Your task to perform on an android device: Go to location settings Image 0: 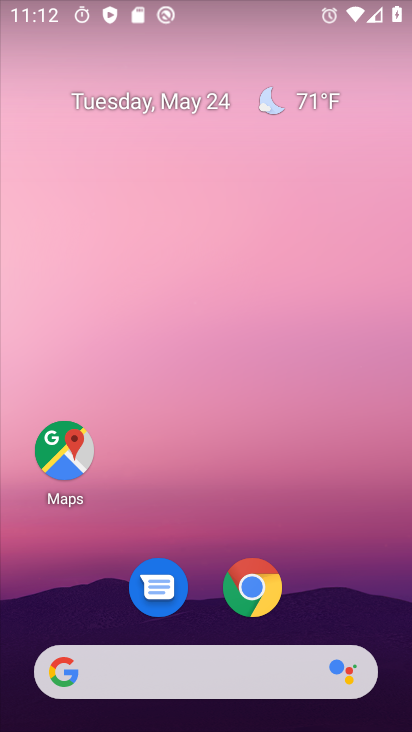
Step 0: drag from (329, 680) to (236, 103)
Your task to perform on an android device: Go to location settings Image 1: 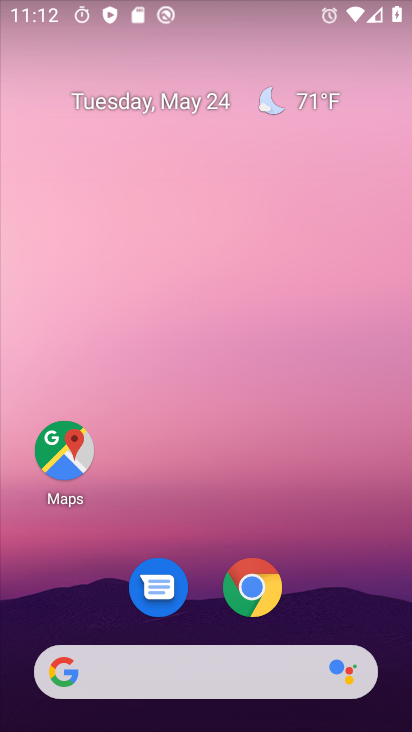
Step 1: click (240, 113)
Your task to perform on an android device: Go to location settings Image 2: 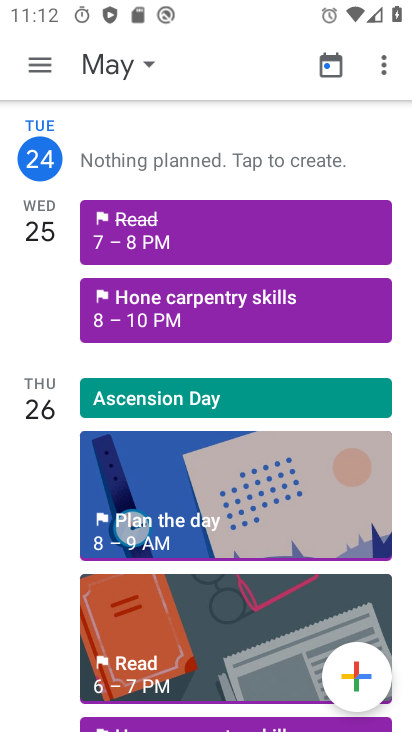
Step 2: drag from (381, 530) to (265, 27)
Your task to perform on an android device: Go to location settings Image 3: 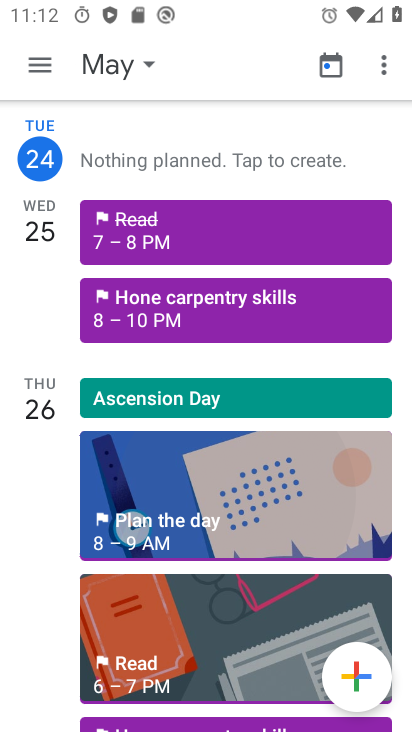
Step 3: drag from (375, 450) to (252, 168)
Your task to perform on an android device: Go to location settings Image 4: 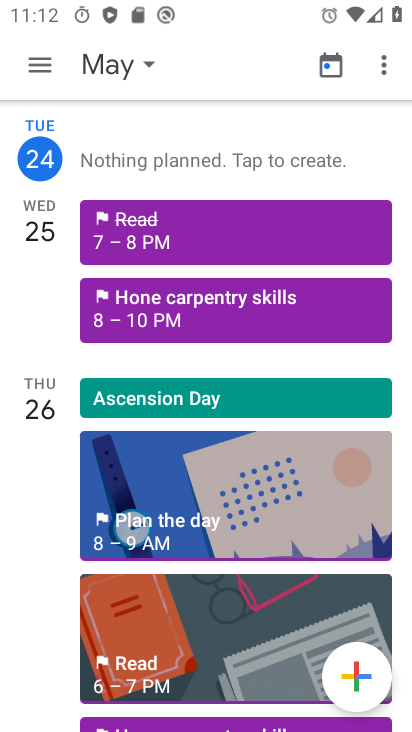
Step 4: press back button
Your task to perform on an android device: Go to location settings Image 5: 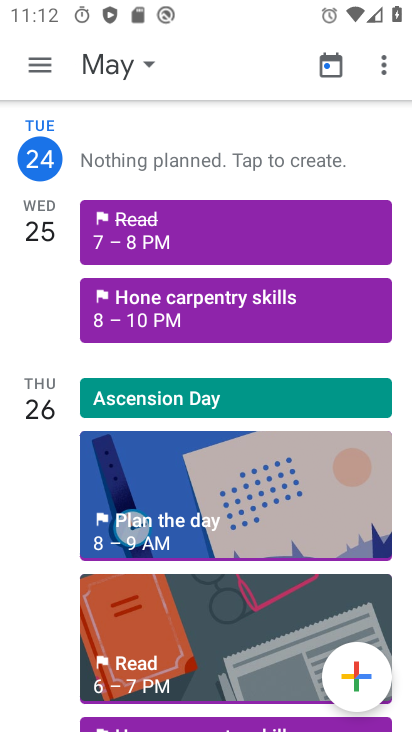
Step 5: press back button
Your task to perform on an android device: Go to location settings Image 6: 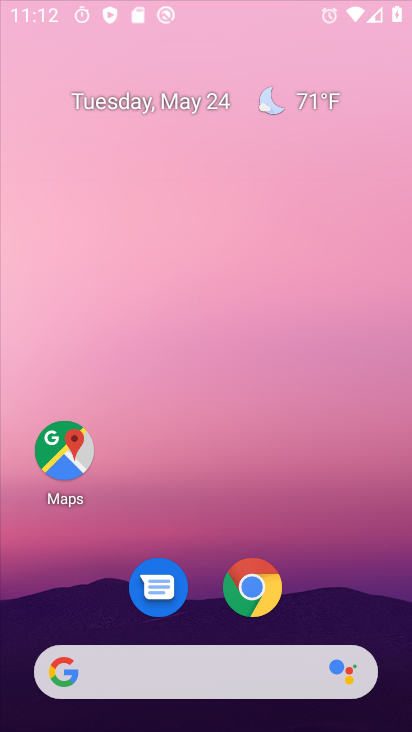
Step 6: press back button
Your task to perform on an android device: Go to location settings Image 7: 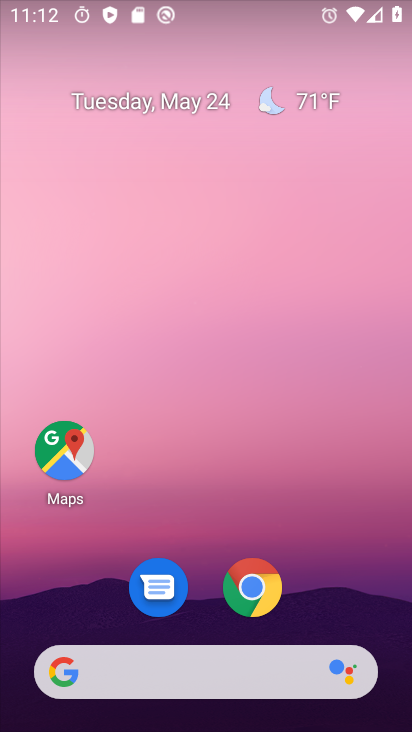
Step 7: press home button
Your task to perform on an android device: Go to location settings Image 8: 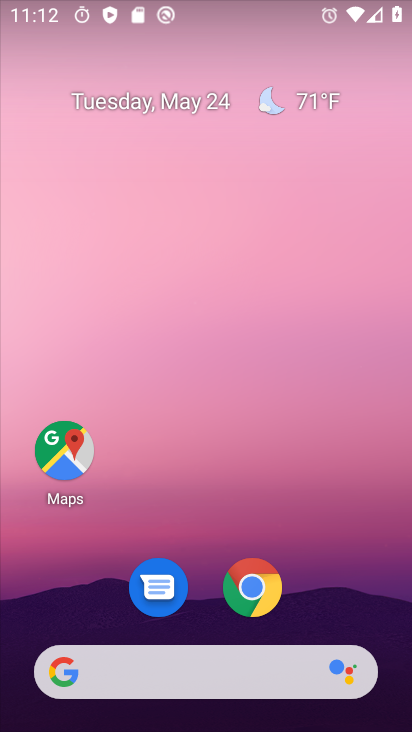
Step 8: drag from (341, 624) to (216, 219)
Your task to perform on an android device: Go to location settings Image 9: 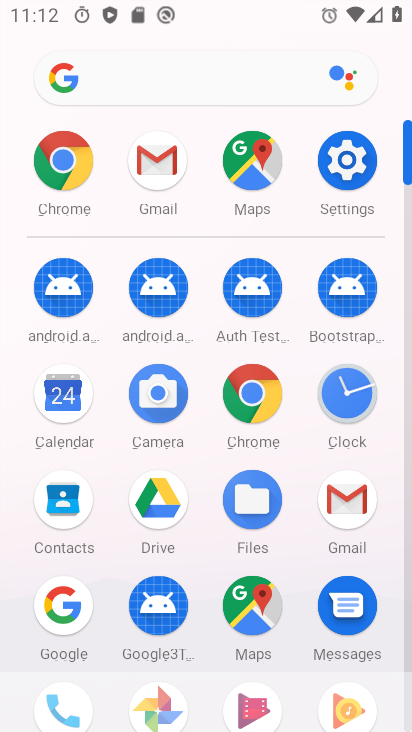
Step 9: click (346, 150)
Your task to perform on an android device: Go to location settings Image 10: 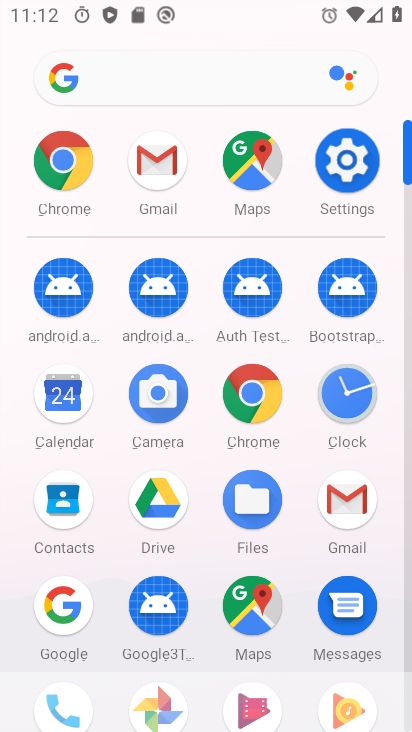
Step 10: click (346, 150)
Your task to perform on an android device: Go to location settings Image 11: 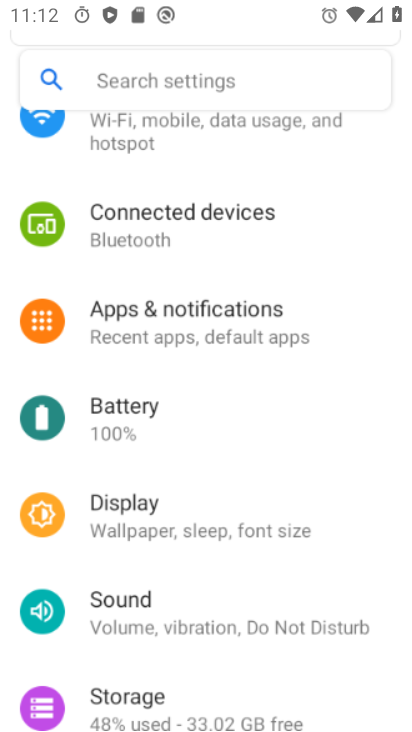
Step 11: click (349, 150)
Your task to perform on an android device: Go to location settings Image 12: 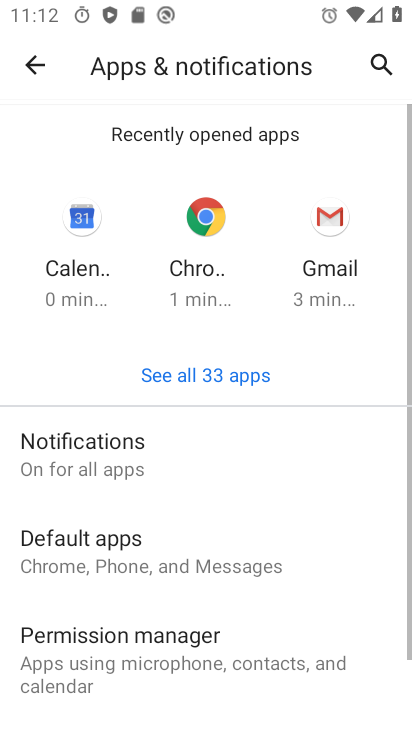
Step 12: click (20, 66)
Your task to perform on an android device: Go to location settings Image 13: 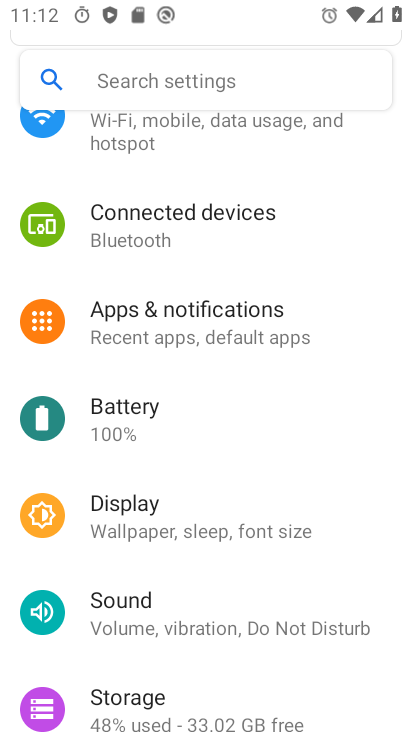
Step 13: drag from (187, 532) to (166, 236)
Your task to perform on an android device: Go to location settings Image 14: 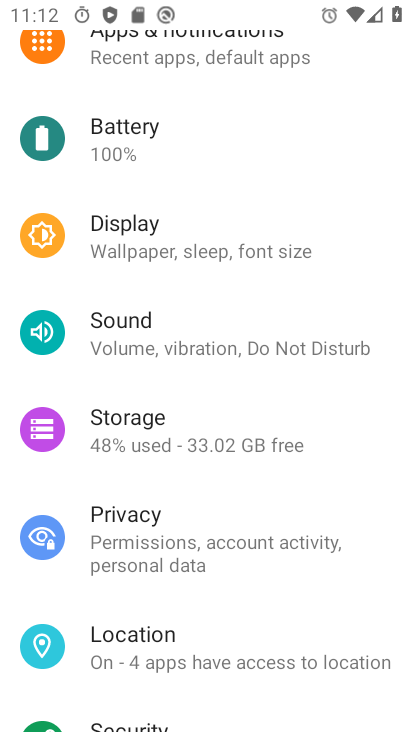
Step 14: drag from (217, 547) to (203, 146)
Your task to perform on an android device: Go to location settings Image 15: 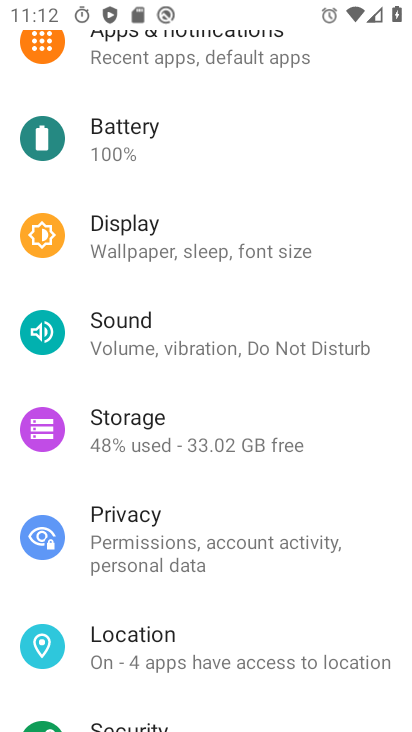
Step 15: drag from (252, 519) to (253, 200)
Your task to perform on an android device: Go to location settings Image 16: 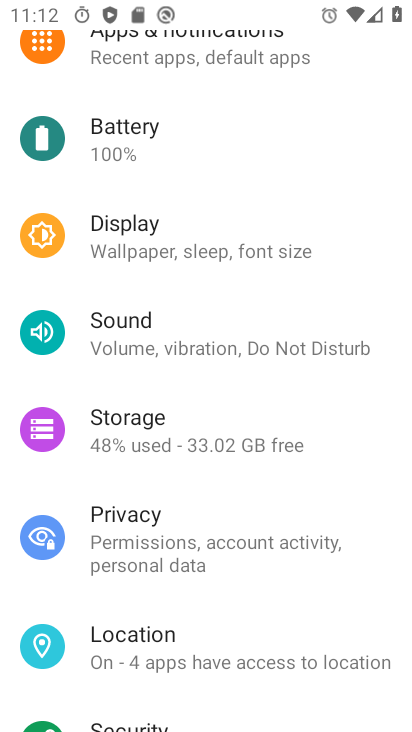
Step 16: click (131, 640)
Your task to perform on an android device: Go to location settings Image 17: 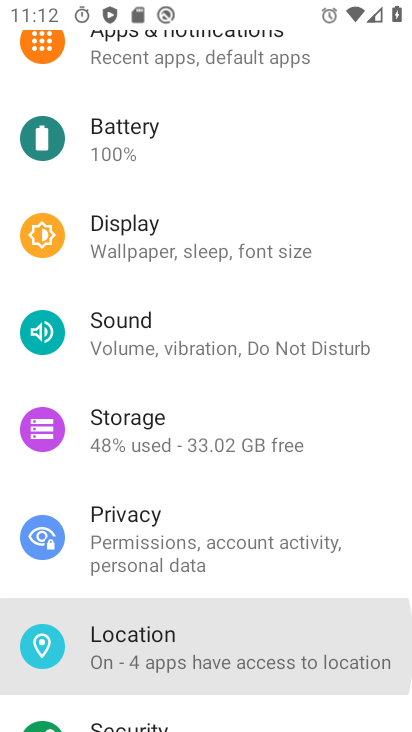
Step 17: click (131, 640)
Your task to perform on an android device: Go to location settings Image 18: 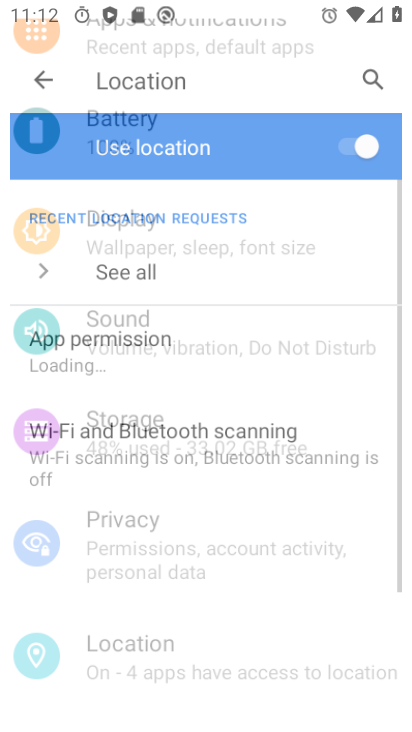
Step 18: click (133, 642)
Your task to perform on an android device: Go to location settings Image 19: 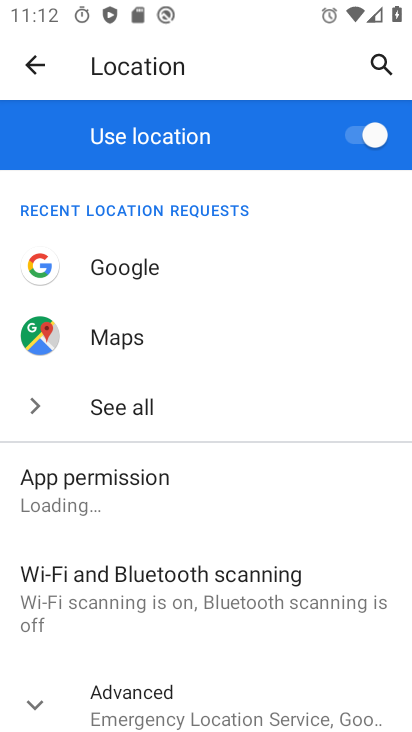
Step 19: drag from (194, 546) to (202, 148)
Your task to perform on an android device: Go to location settings Image 20: 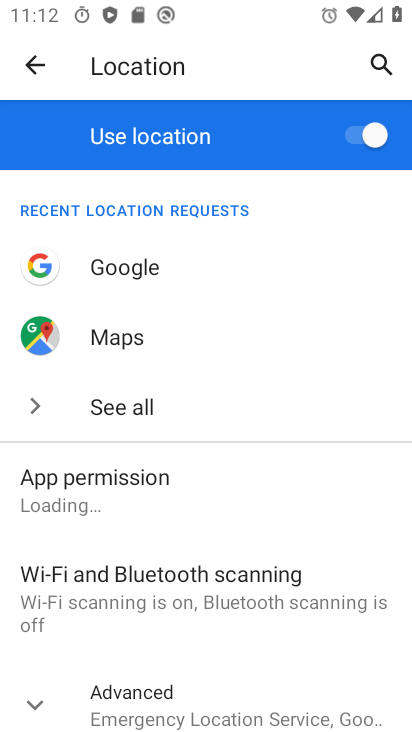
Step 20: click (264, 112)
Your task to perform on an android device: Go to location settings Image 21: 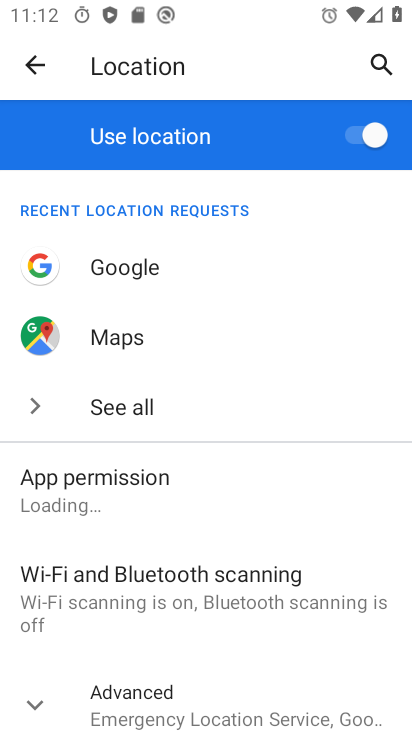
Step 21: drag from (277, 511) to (289, 97)
Your task to perform on an android device: Go to location settings Image 22: 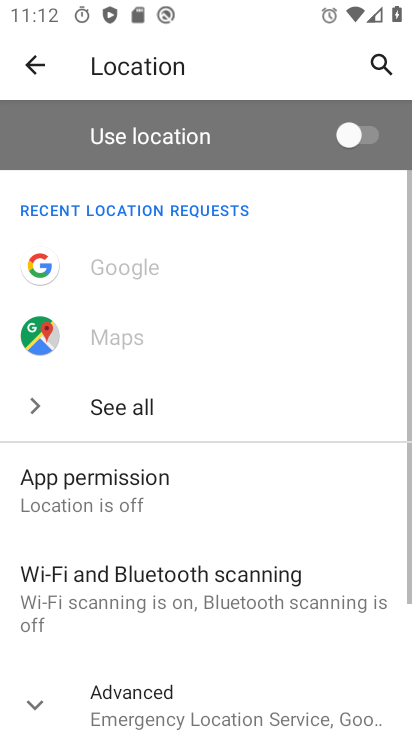
Step 22: drag from (178, 572) to (181, 146)
Your task to perform on an android device: Go to location settings Image 23: 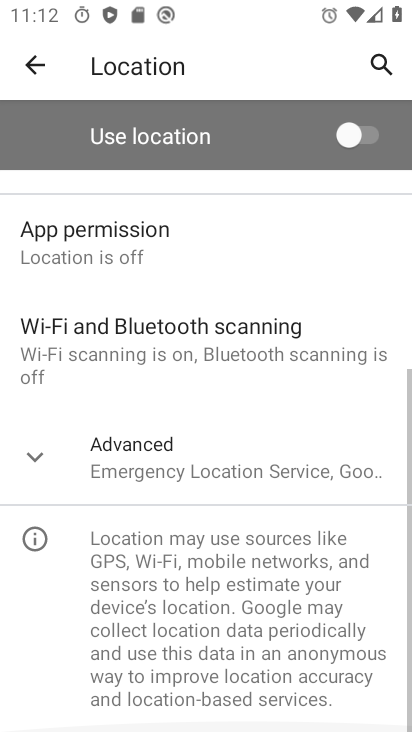
Step 23: drag from (200, 562) to (243, 204)
Your task to perform on an android device: Go to location settings Image 24: 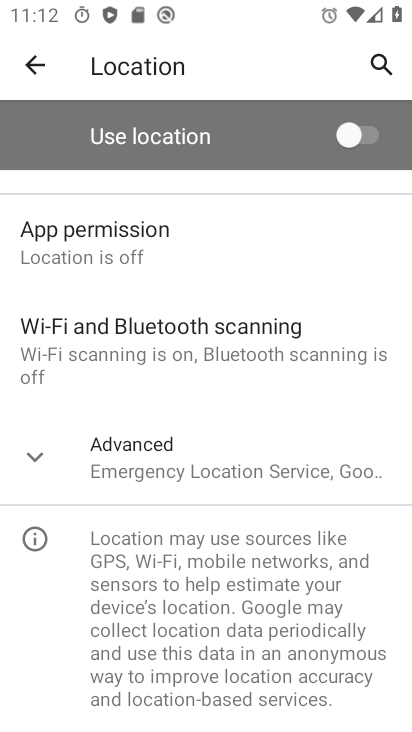
Step 24: click (356, 138)
Your task to perform on an android device: Go to location settings Image 25: 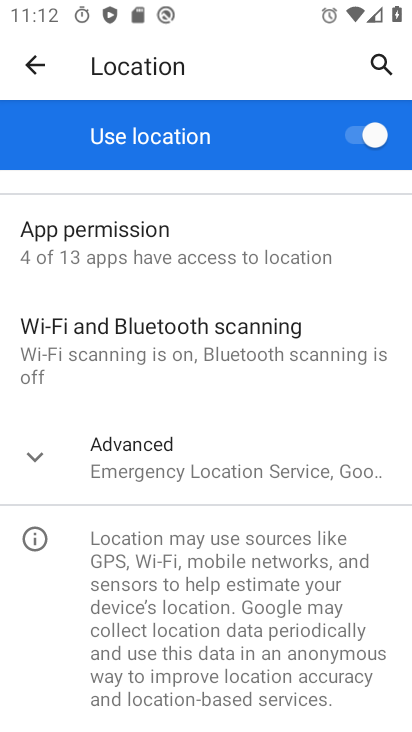
Step 25: task complete